Your task to perform on an android device: set an alarm Image 0: 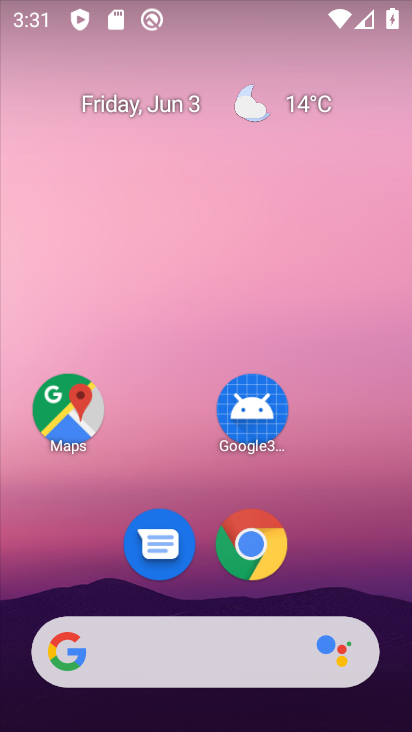
Step 0: drag from (59, 622) to (170, 150)
Your task to perform on an android device: set an alarm Image 1: 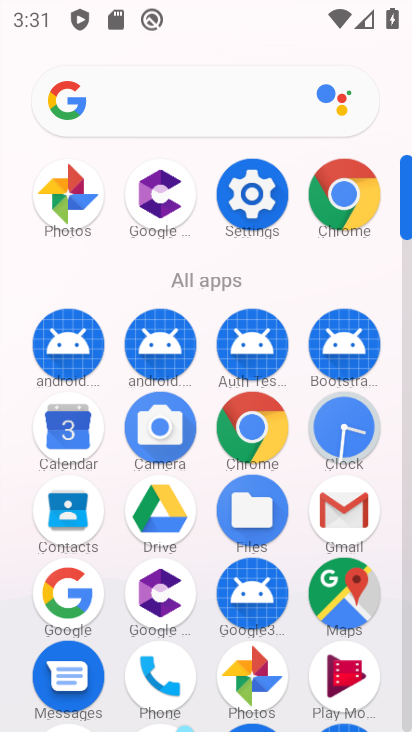
Step 1: click (325, 422)
Your task to perform on an android device: set an alarm Image 2: 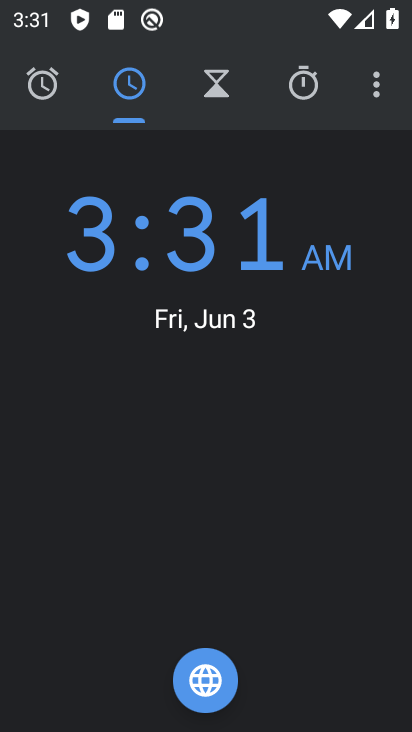
Step 2: click (61, 89)
Your task to perform on an android device: set an alarm Image 3: 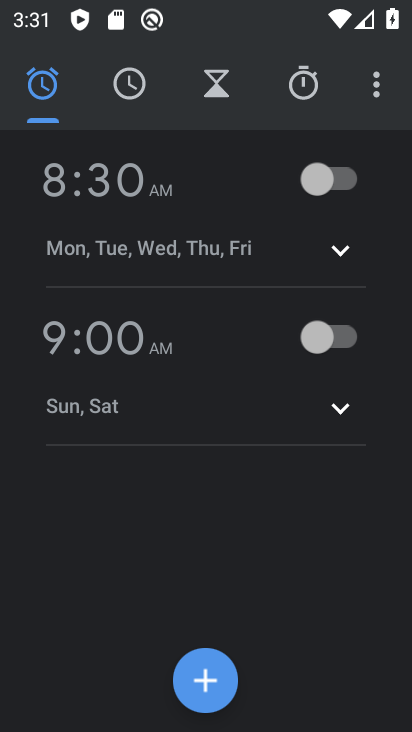
Step 3: click (356, 347)
Your task to perform on an android device: set an alarm Image 4: 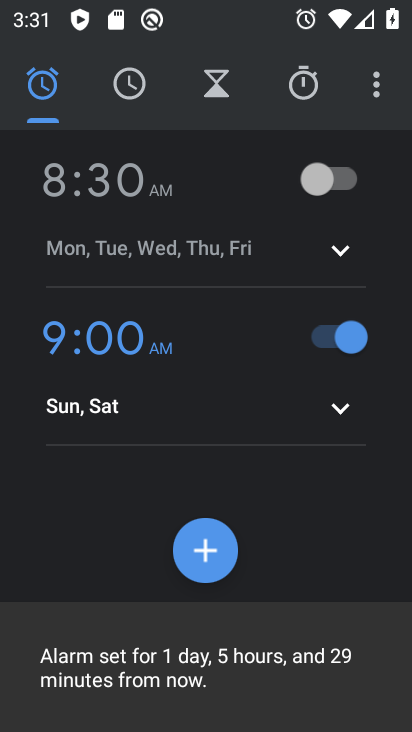
Step 4: task complete